Your task to perform on an android device: Go to calendar. Show me events next week Image 0: 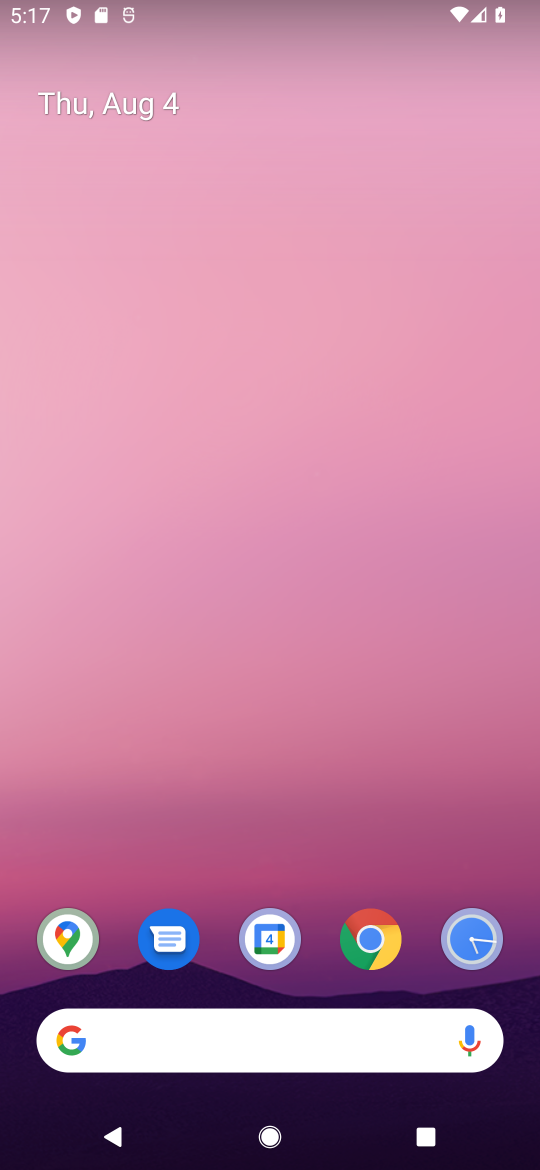
Step 0: drag from (261, 1007) to (346, 335)
Your task to perform on an android device: Go to calendar. Show me events next week Image 1: 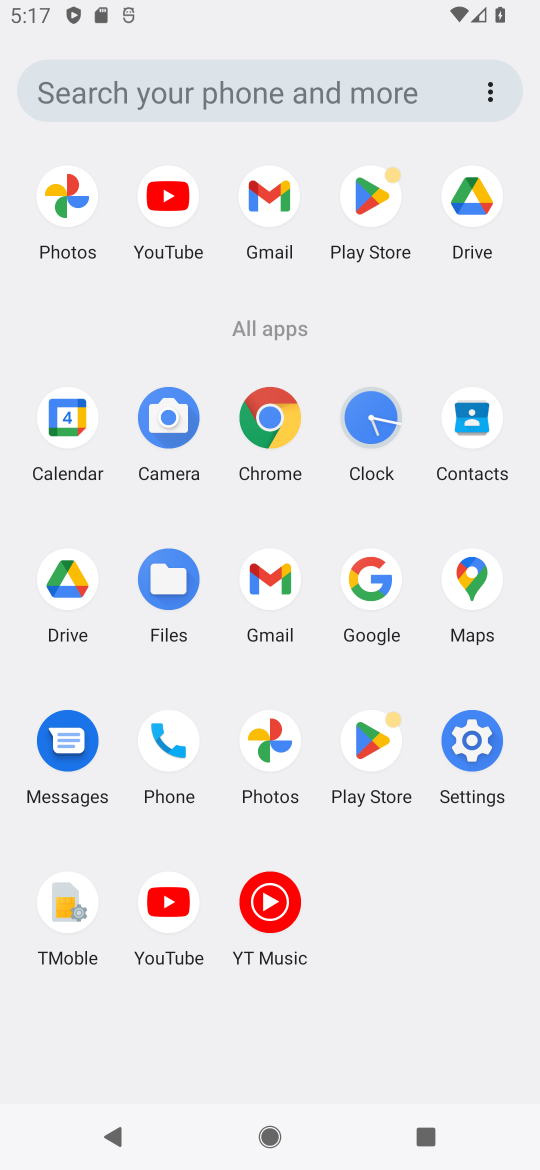
Step 1: click (60, 420)
Your task to perform on an android device: Go to calendar. Show me events next week Image 2: 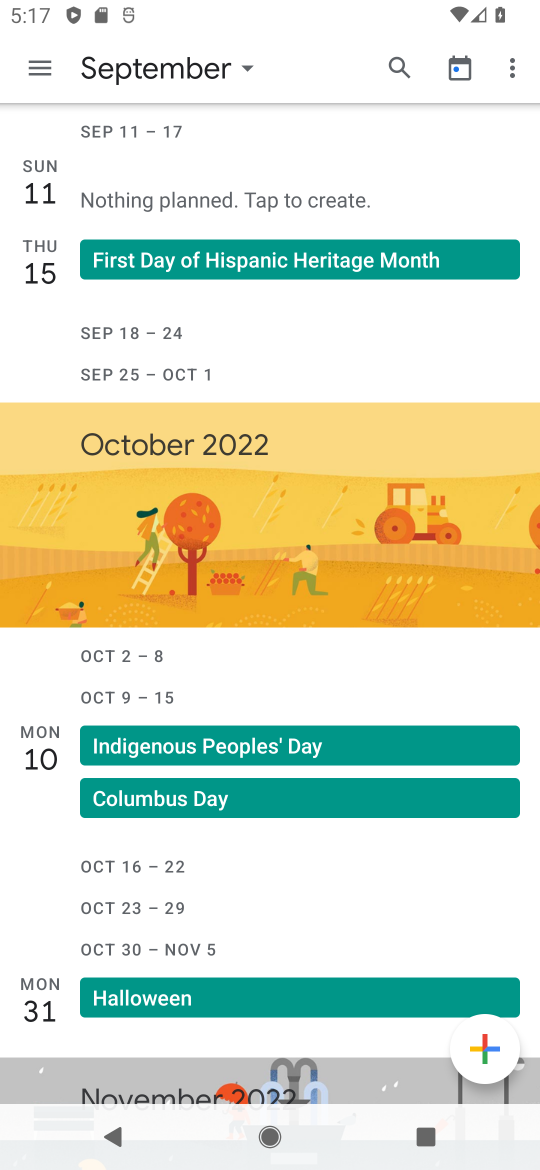
Step 2: click (135, 69)
Your task to perform on an android device: Go to calendar. Show me events next week Image 3: 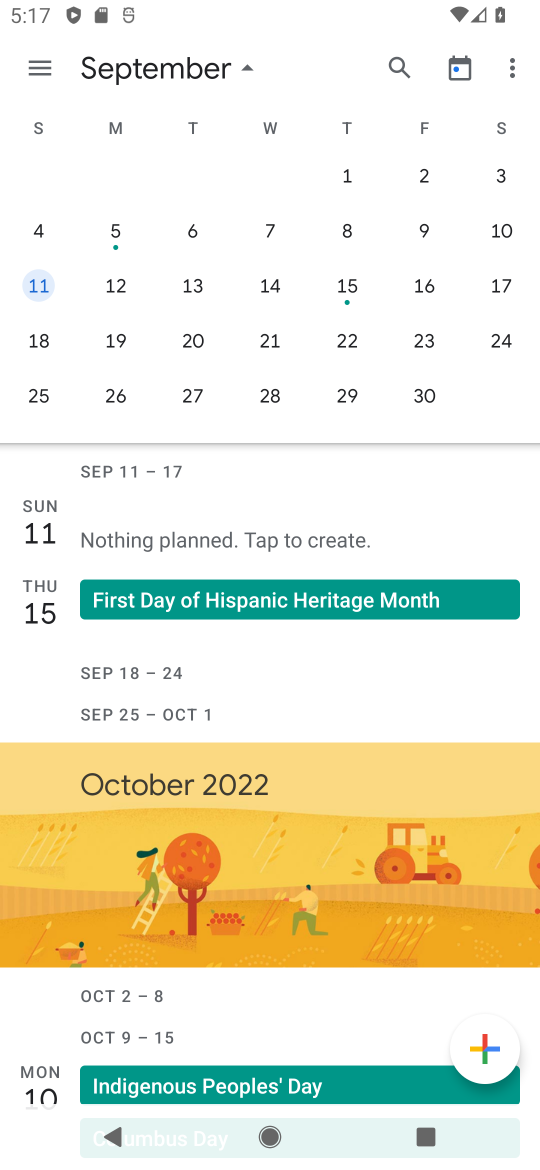
Step 3: drag from (36, 224) to (482, 272)
Your task to perform on an android device: Go to calendar. Show me events next week Image 4: 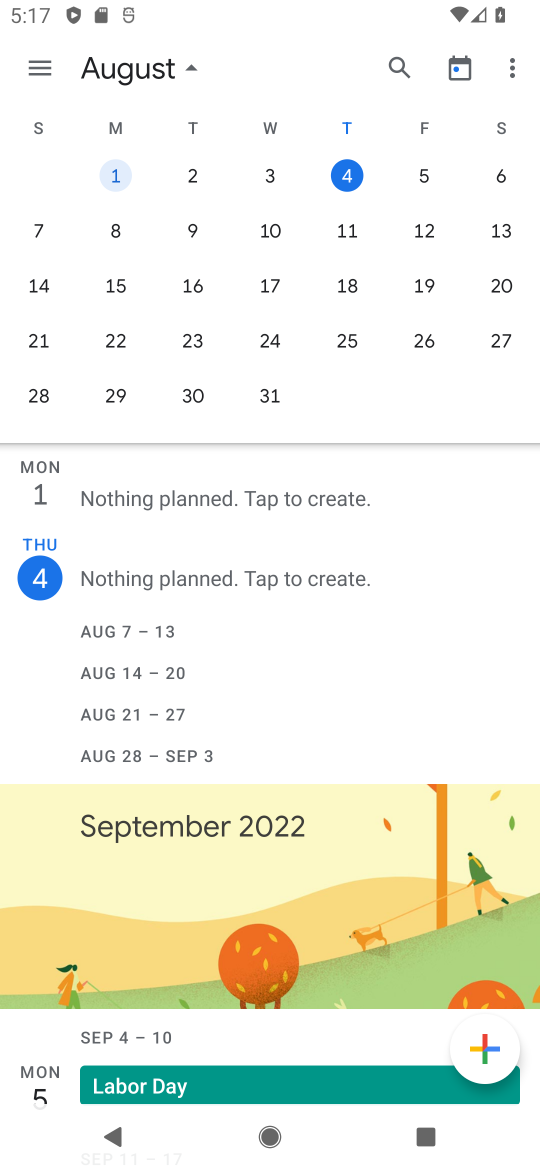
Step 4: click (26, 252)
Your task to perform on an android device: Go to calendar. Show me events next week Image 5: 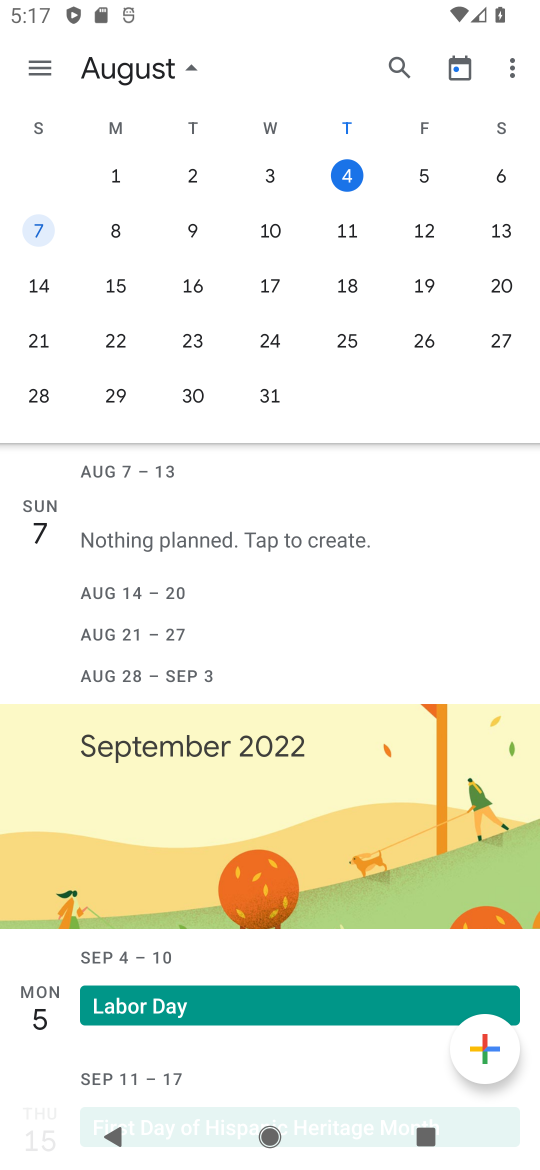
Step 5: click (498, 235)
Your task to perform on an android device: Go to calendar. Show me events next week Image 6: 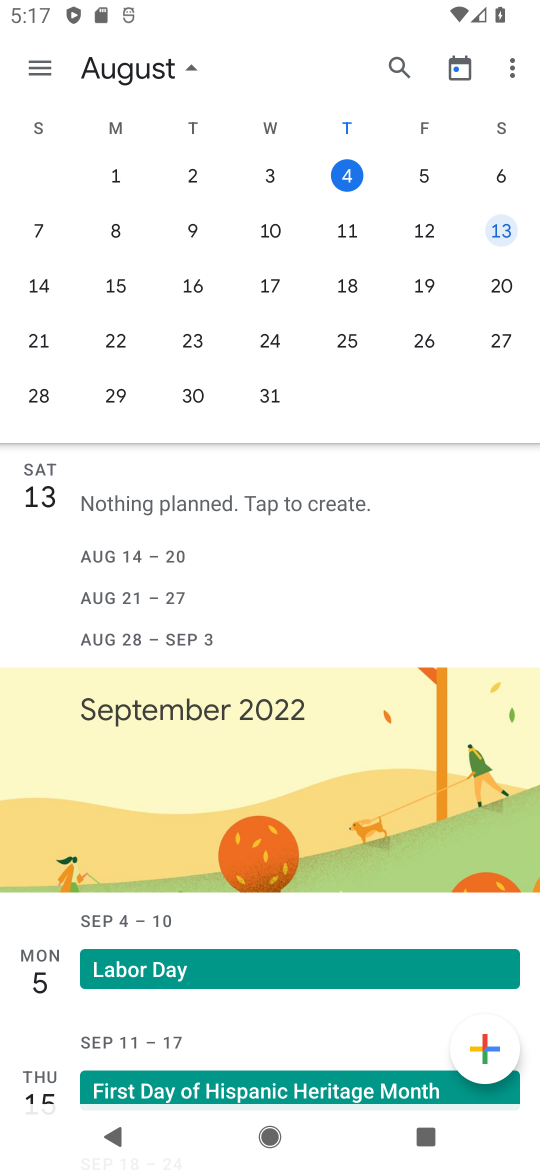
Step 6: task complete